Your task to perform on an android device: Open network settings Image 0: 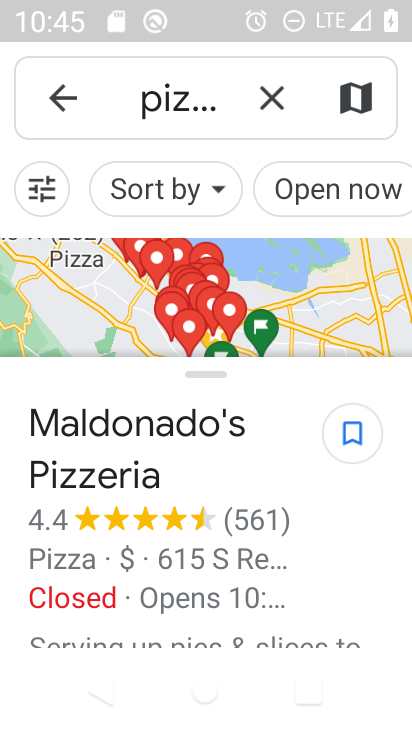
Step 0: press home button
Your task to perform on an android device: Open network settings Image 1: 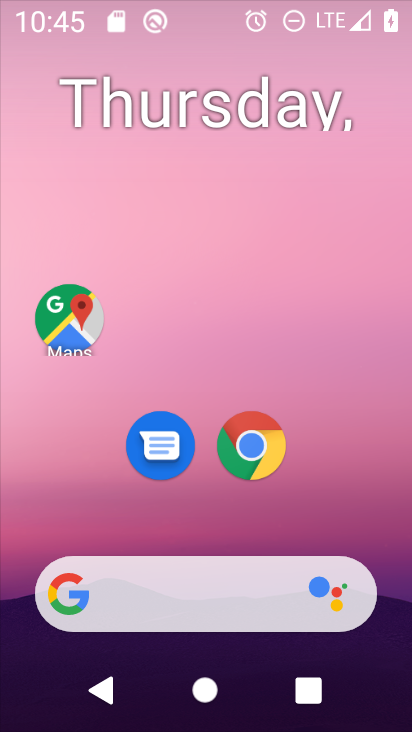
Step 1: drag from (397, 615) to (311, 0)
Your task to perform on an android device: Open network settings Image 2: 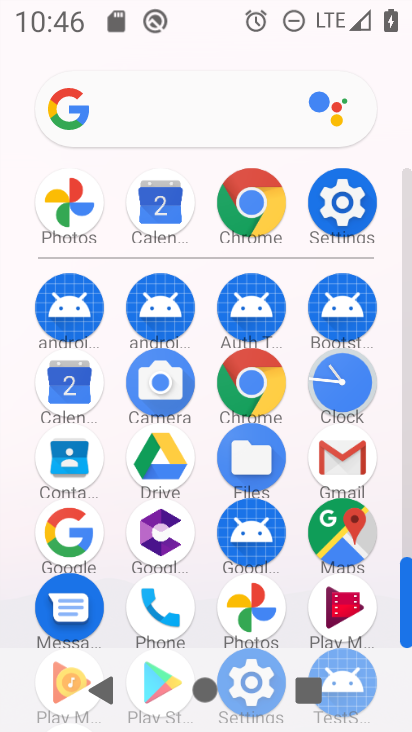
Step 2: click (325, 190)
Your task to perform on an android device: Open network settings Image 3: 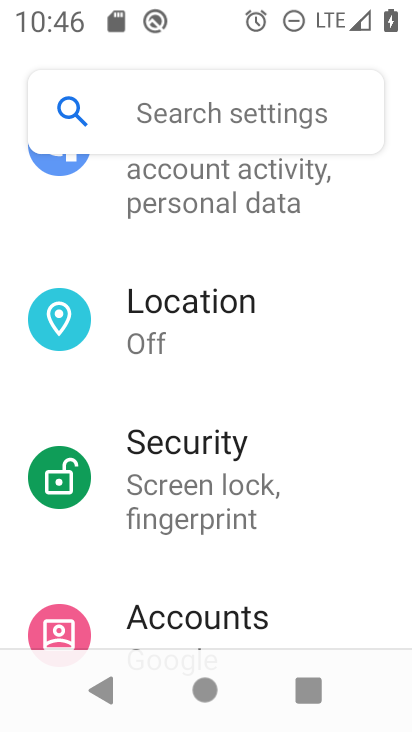
Step 3: drag from (227, 225) to (251, 698)
Your task to perform on an android device: Open network settings Image 4: 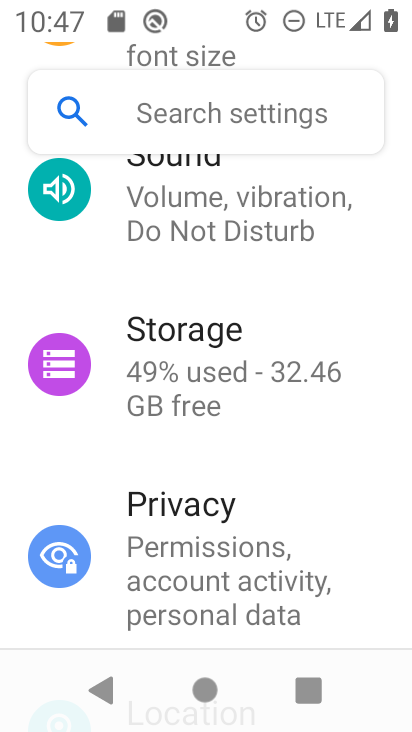
Step 4: drag from (194, 234) to (228, 711)
Your task to perform on an android device: Open network settings Image 5: 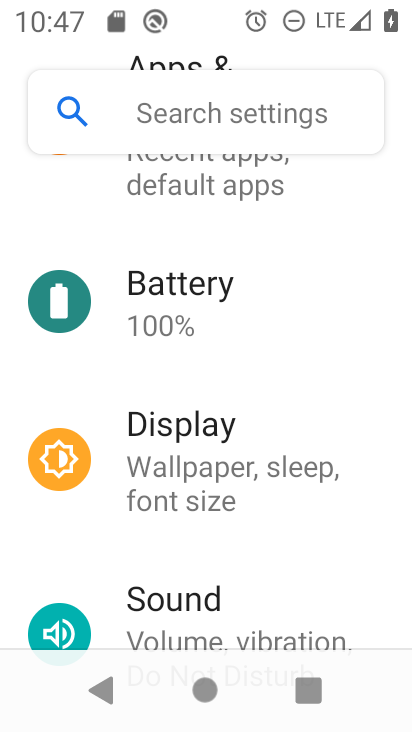
Step 5: drag from (155, 219) to (222, 576)
Your task to perform on an android device: Open network settings Image 6: 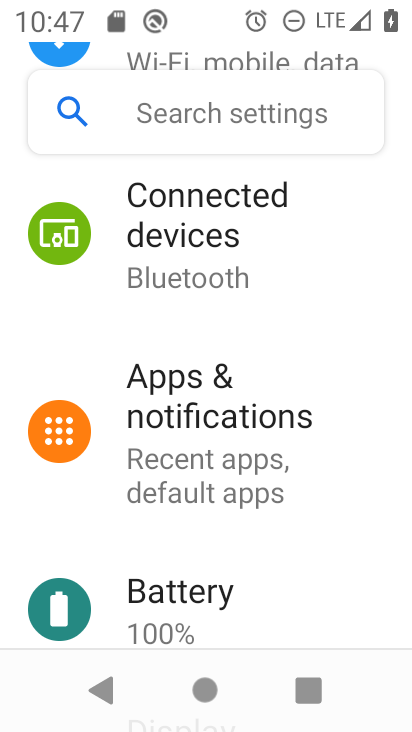
Step 6: drag from (153, 238) to (224, 630)
Your task to perform on an android device: Open network settings Image 7: 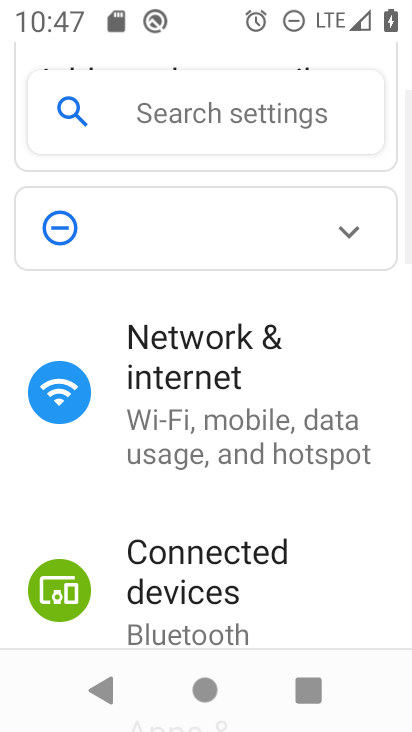
Step 7: click (182, 424)
Your task to perform on an android device: Open network settings Image 8: 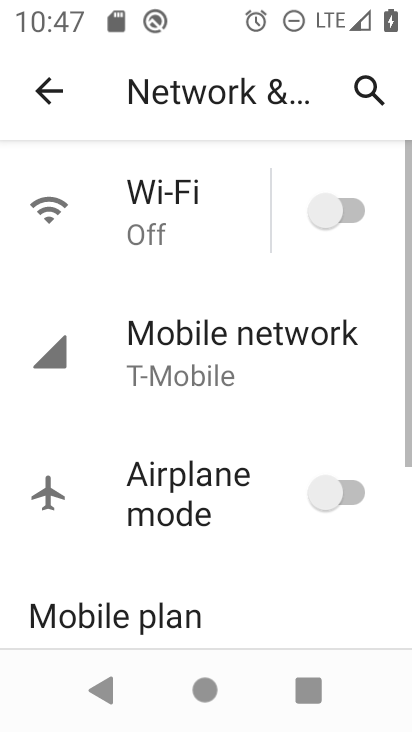
Step 8: task complete